Your task to perform on an android device: Open ESPN.com Image 0: 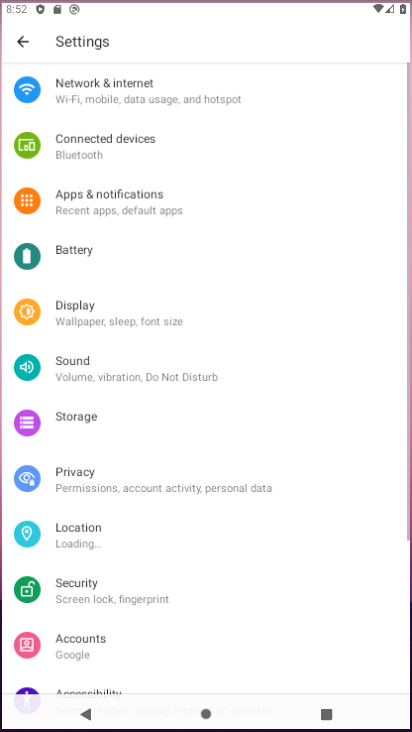
Step 0: drag from (255, 630) to (170, 299)
Your task to perform on an android device: Open ESPN.com Image 1: 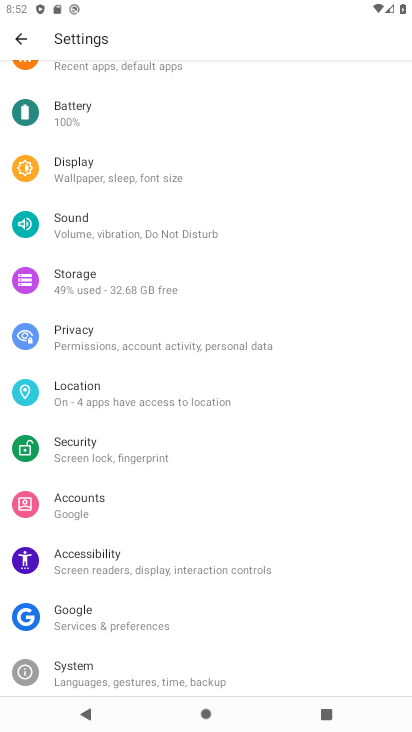
Step 1: press home button
Your task to perform on an android device: Open ESPN.com Image 2: 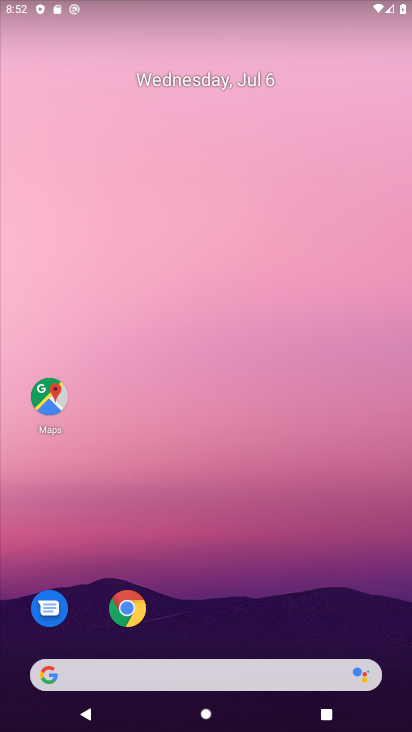
Step 2: click (138, 608)
Your task to perform on an android device: Open ESPN.com Image 3: 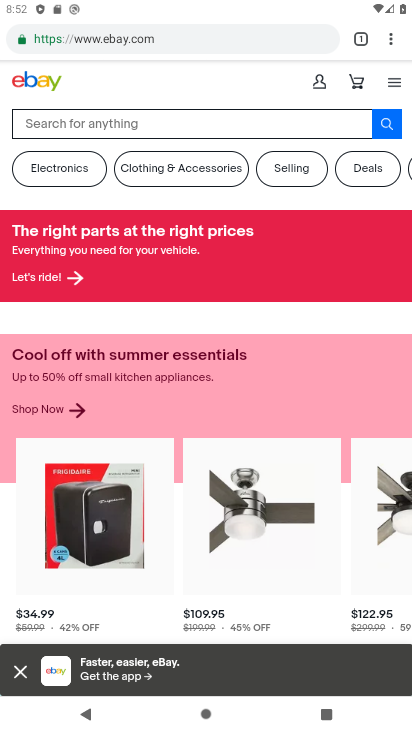
Step 3: click (287, 47)
Your task to perform on an android device: Open ESPN.com Image 4: 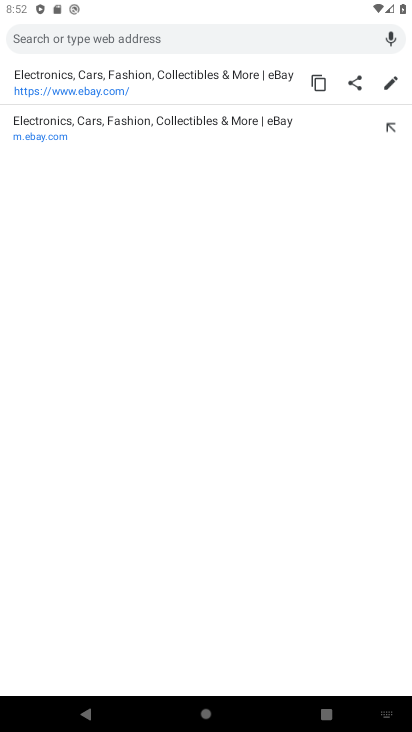
Step 4: type "espn"
Your task to perform on an android device: Open ESPN.com Image 5: 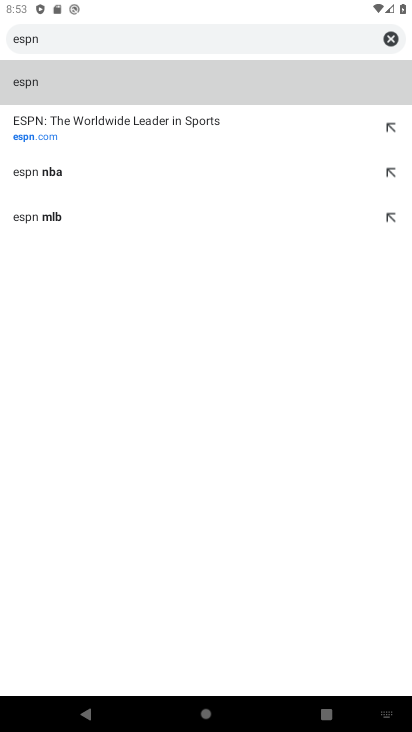
Step 5: click (268, 125)
Your task to perform on an android device: Open ESPN.com Image 6: 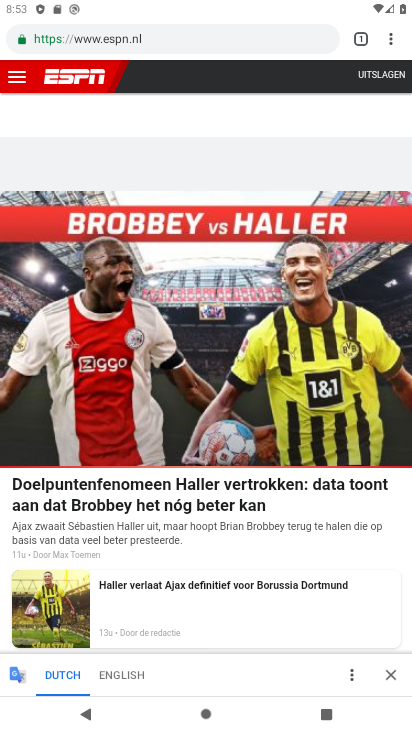
Step 6: task complete